Your task to perform on an android device: Open ESPN.com Image 0: 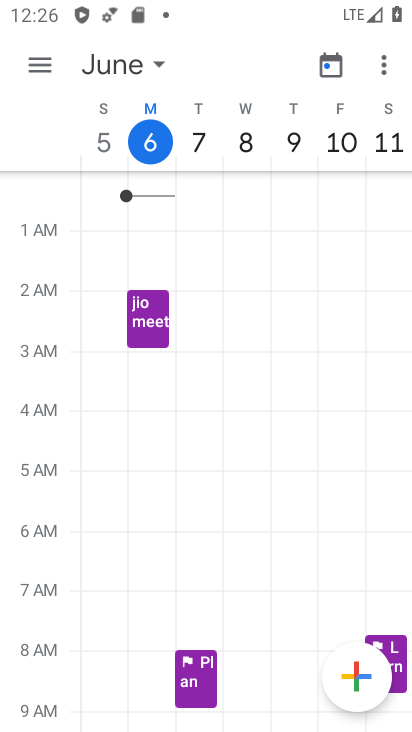
Step 0: press home button
Your task to perform on an android device: Open ESPN.com Image 1: 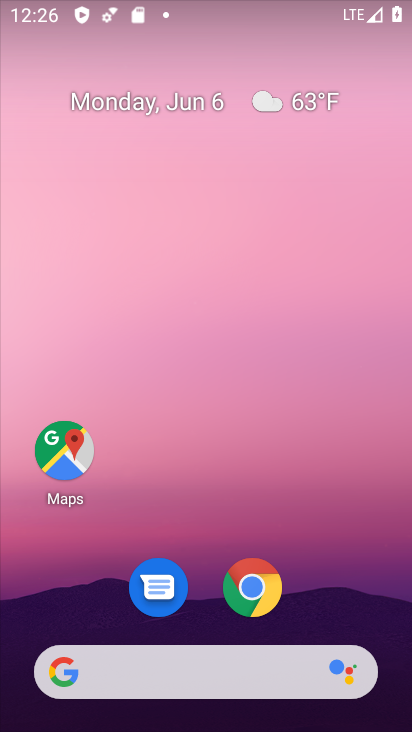
Step 1: click (266, 599)
Your task to perform on an android device: Open ESPN.com Image 2: 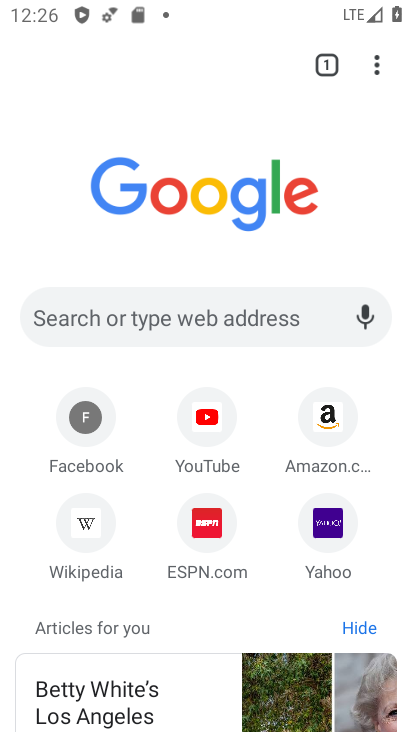
Step 2: click (208, 533)
Your task to perform on an android device: Open ESPN.com Image 3: 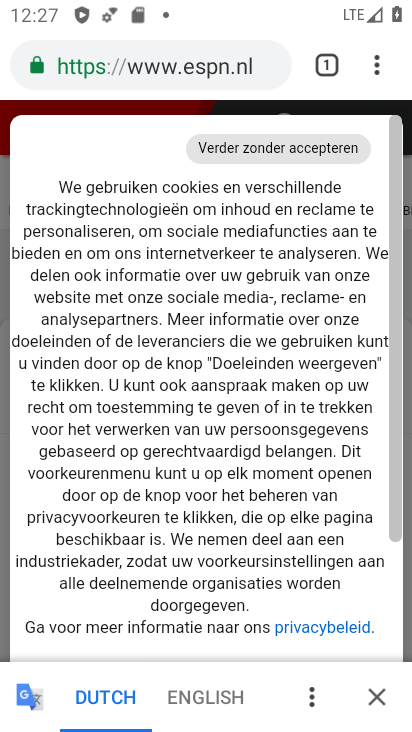
Step 3: task complete